Your task to perform on an android device: Open maps Image 0: 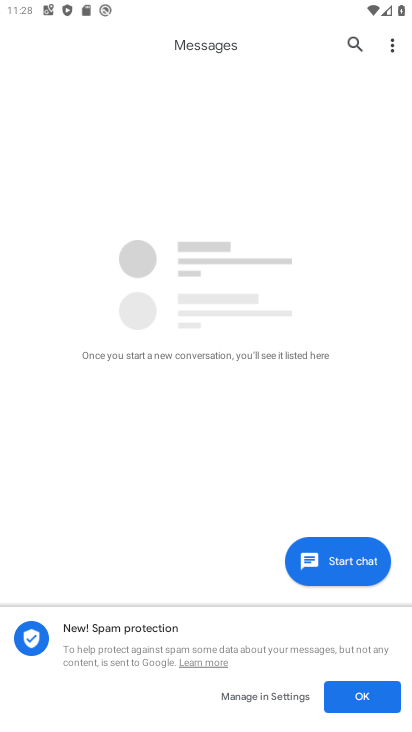
Step 0: press back button
Your task to perform on an android device: Open maps Image 1: 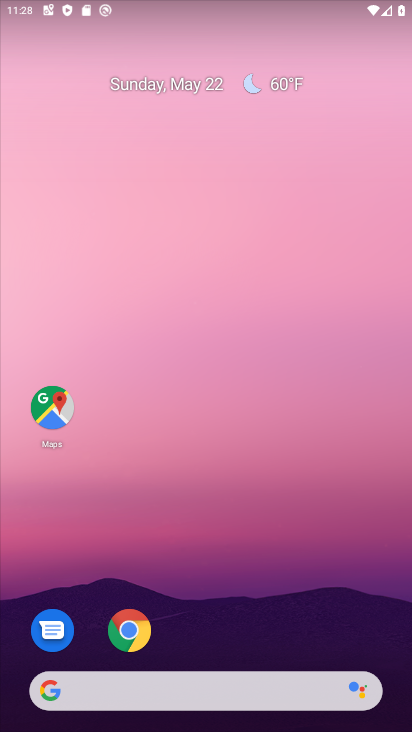
Step 1: click (54, 407)
Your task to perform on an android device: Open maps Image 2: 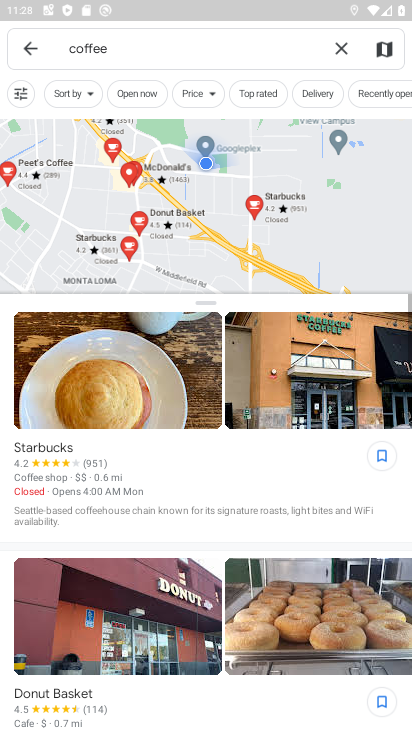
Step 2: click (339, 45)
Your task to perform on an android device: Open maps Image 3: 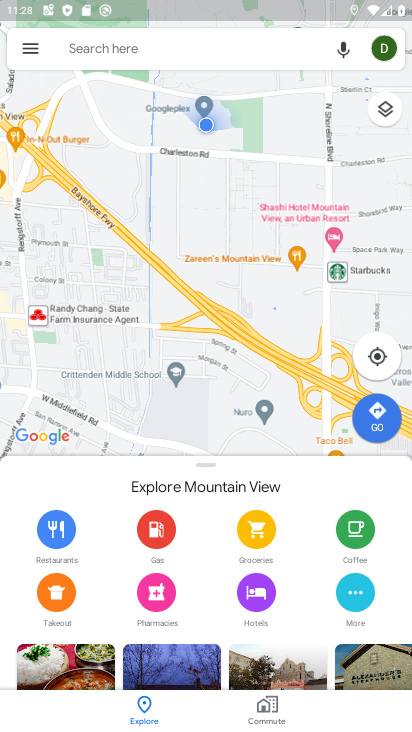
Step 3: task complete